Your task to perform on an android device: Open Android settings Image 0: 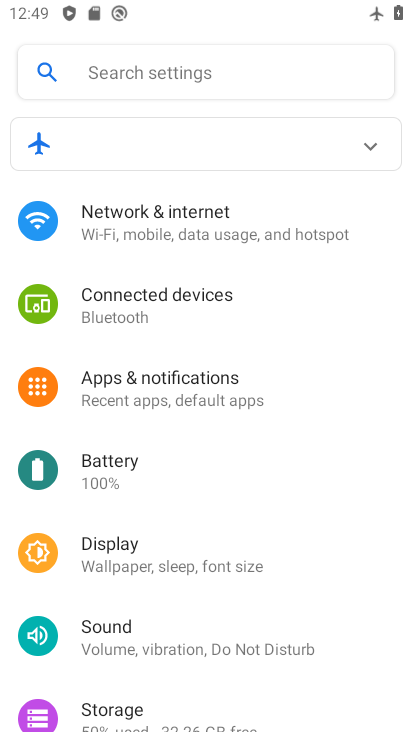
Step 0: press home button
Your task to perform on an android device: Open Android settings Image 1: 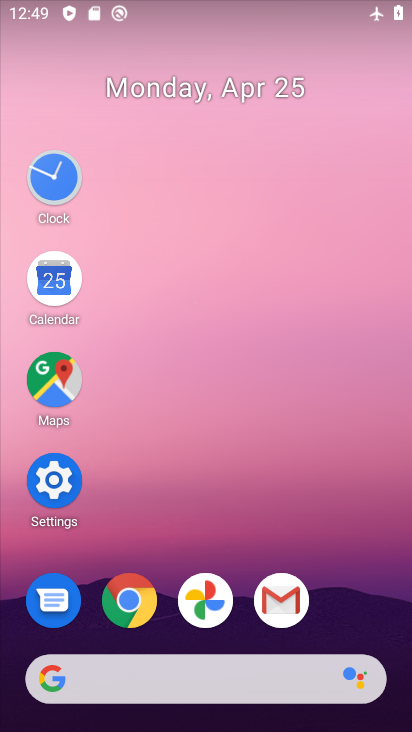
Step 1: click (44, 470)
Your task to perform on an android device: Open Android settings Image 2: 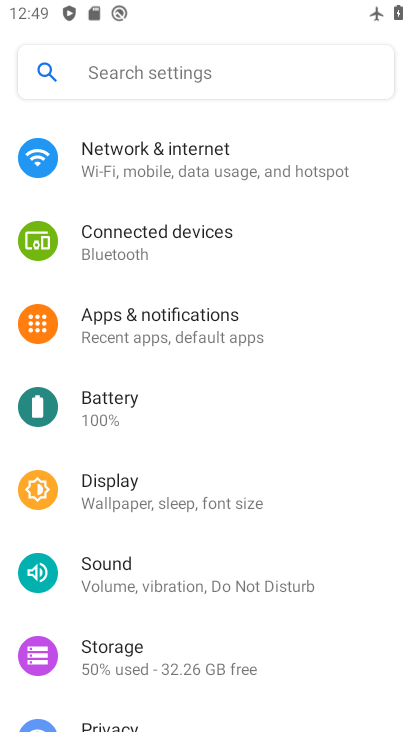
Step 2: drag from (254, 486) to (251, 23)
Your task to perform on an android device: Open Android settings Image 3: 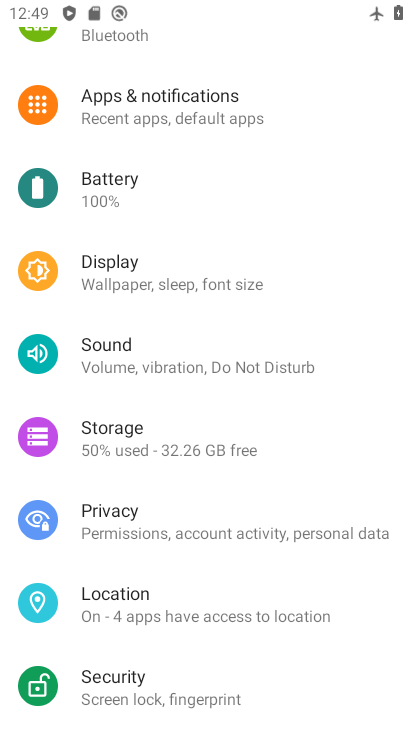
Step 3: drag from (178, 564) to (207, 50)
Your task to perform on an android device: Open Android settings Image 4: 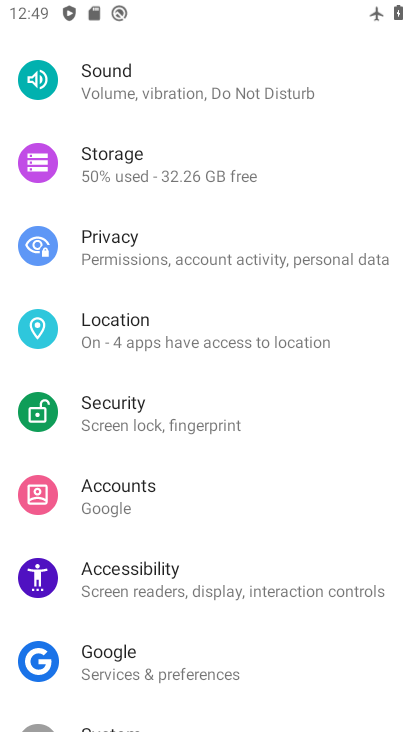
Step 4: drag from (193, 616) to (191, 85)
Your task to perform on an android device: Open Android settings Image 5: 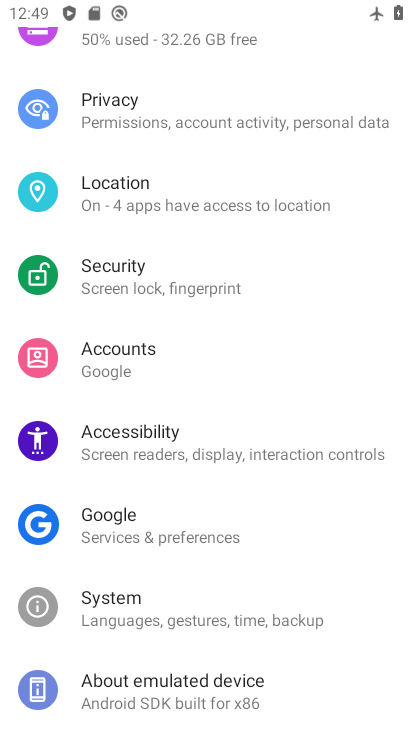
Step 5: click (134, 682)
Your task to perform on an android device: Open Android settings Image 6: 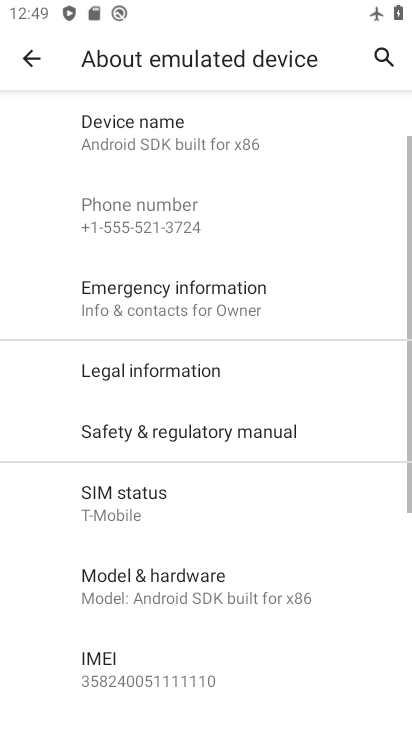
Step 6: drag from (226, 504) to (215, 187)
Your task to perform on an android device: Open Android settings Image 7: 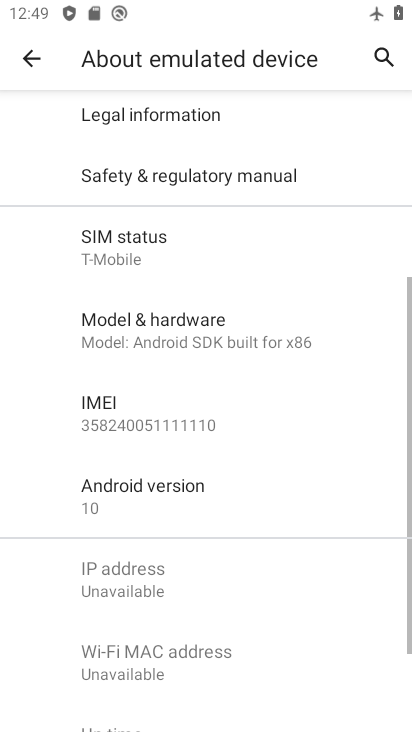
Step 7: click (148, 477)
Your task to perform on an android device: Open Android settings Image 8: 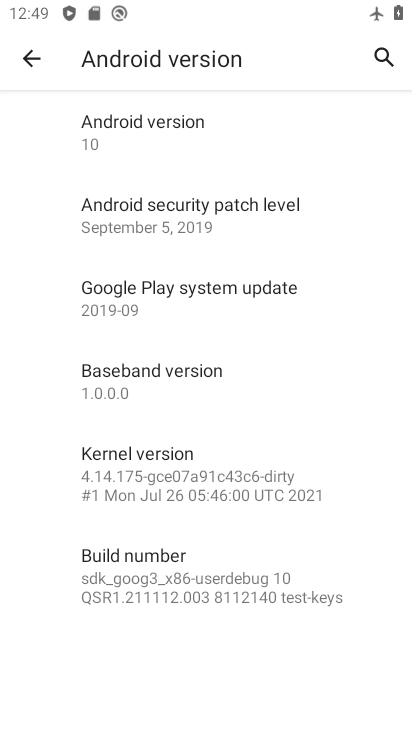
Step 8: task complete